Your task to perform on an android device: turn on notifications settings in the gmail app Image 0: 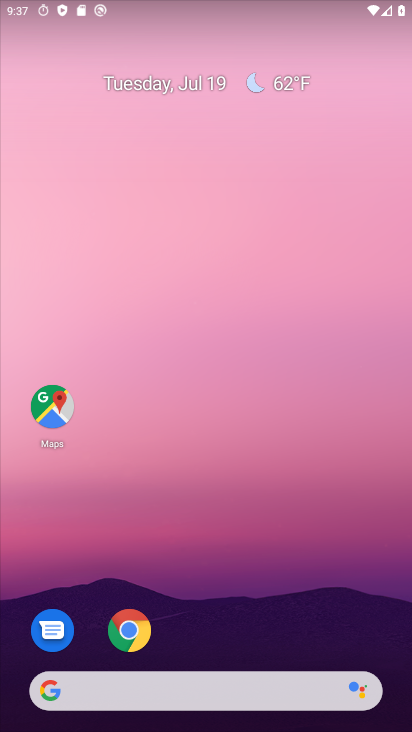
Step 0: drag from (184, 573) to (189, 250)
Your task to perform on an android device: turn on notifications settings in the gmail app Image 1: 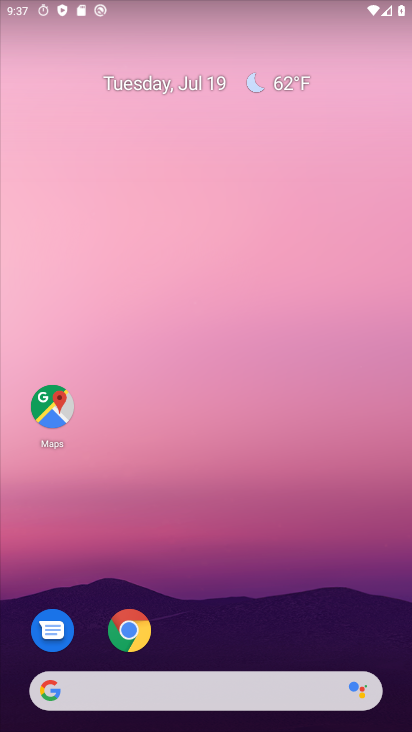
Step 1: drag from (228, 666) to (227, 131)
Your task to perform on an android device: turn on notifications settings in the gmail app Image 2: 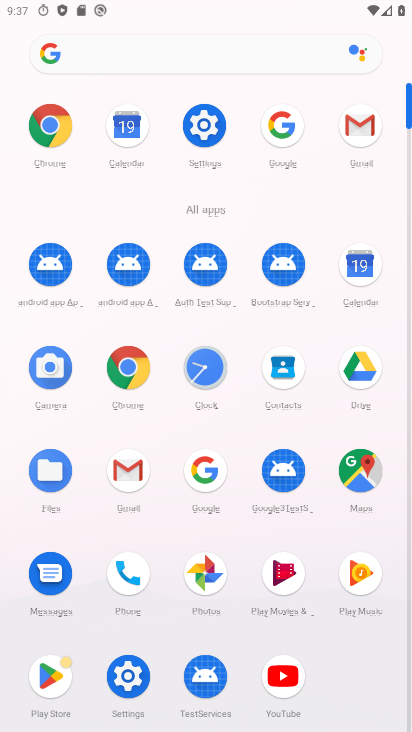
Step 2: click (131, 468)
Your task to perform on an android device: turn on notifications settings in the gmail app Image 3: 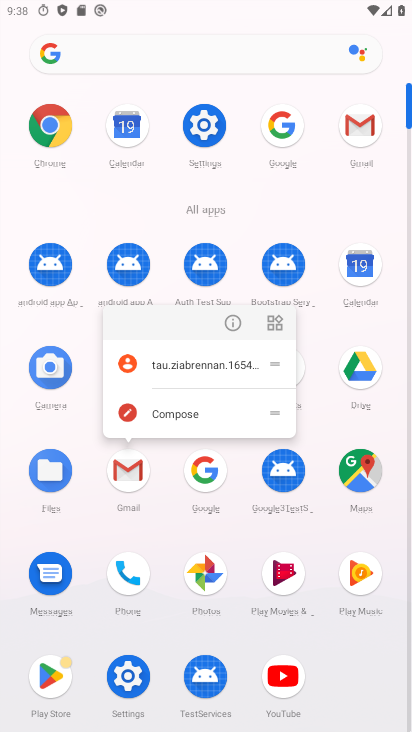
Step 3: click (128, 467)
Your task to perform on an android device: turn on notifications settings in the gmail app Image 4: 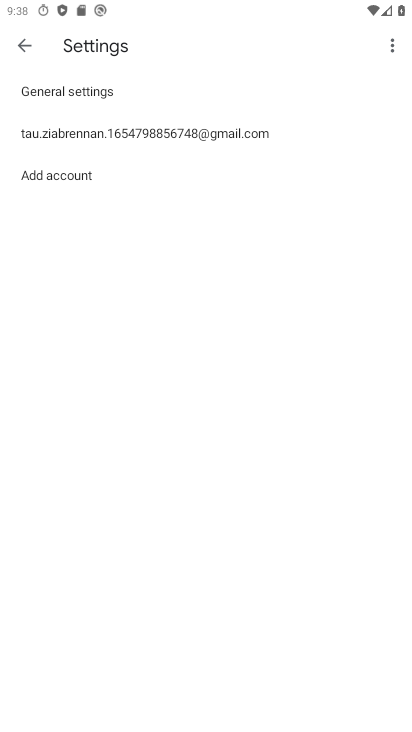
Step 4: click (76, 138)
Your task to perform on an android device: turn on notifications settings in the gmail app Image 5: 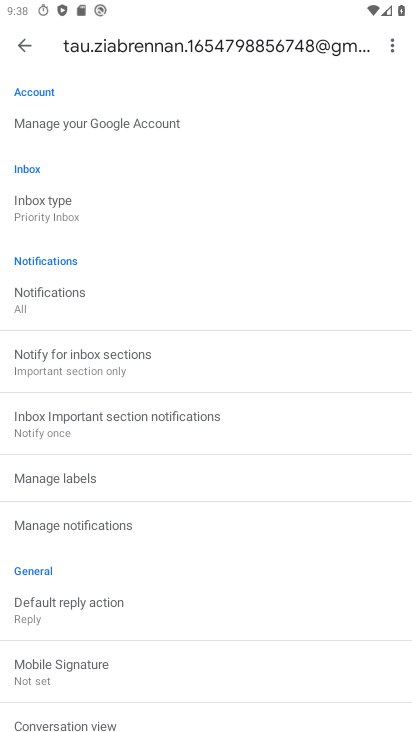
Step 5: click (61, 529)
Your task to perform on an android device: turn on notifications settings in the gmail app Image 6: 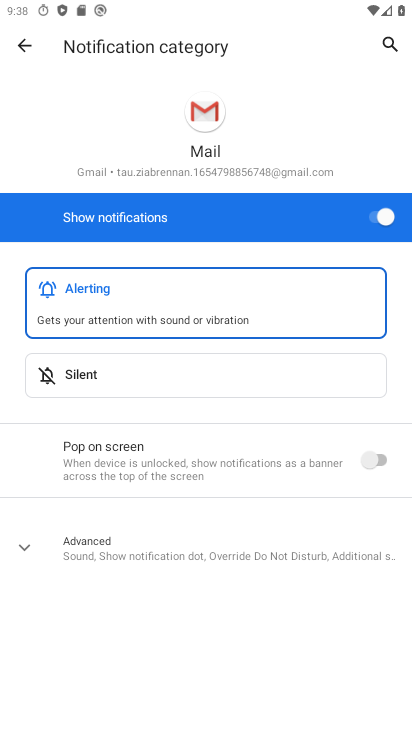
Step 6: task complete